Your task to perform on an android device: turn on sleep mode Image 0: 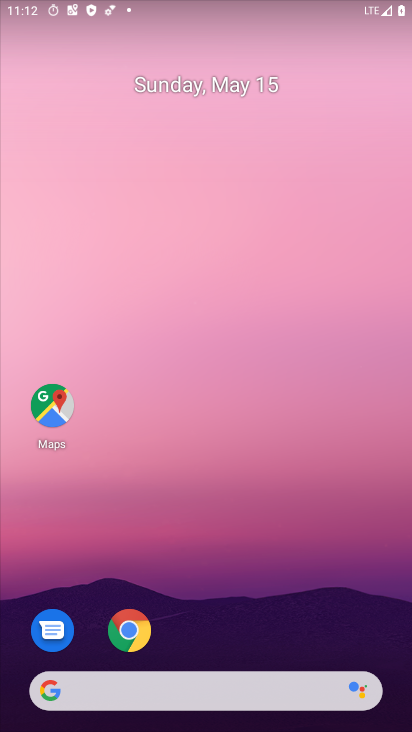
Step 0: drag from (242, 673) to (332, 99)
Your task to perform on an android device: turn on sleep mode Image 1: 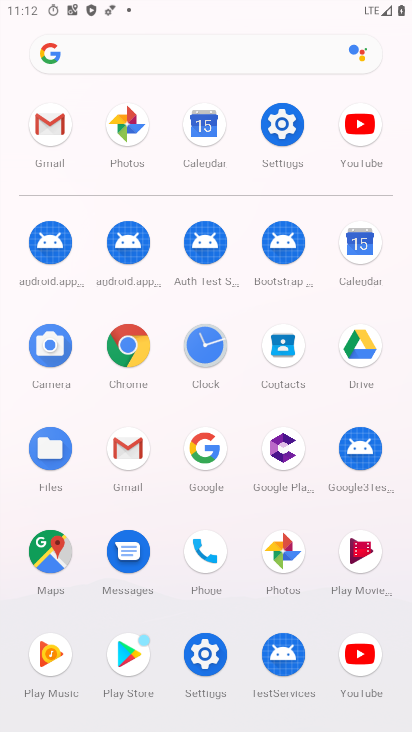
Step 1: click (282, 123)
Your task to perform on an android device: turn on sleep mode Image 2: 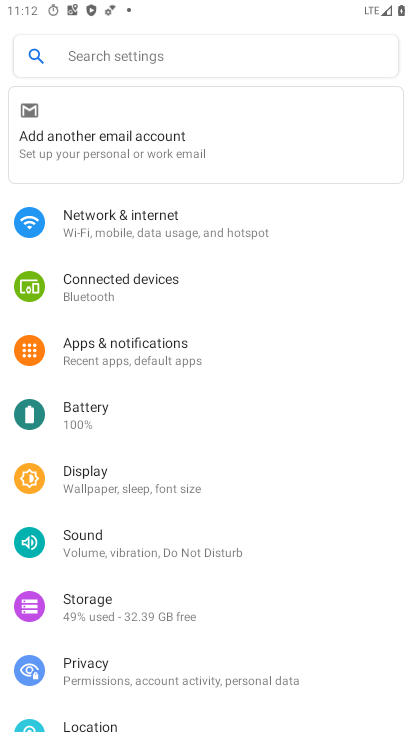
Step 2: click (112, 65)
Your task to perform on an android device: turn on sleep mode Image 3: 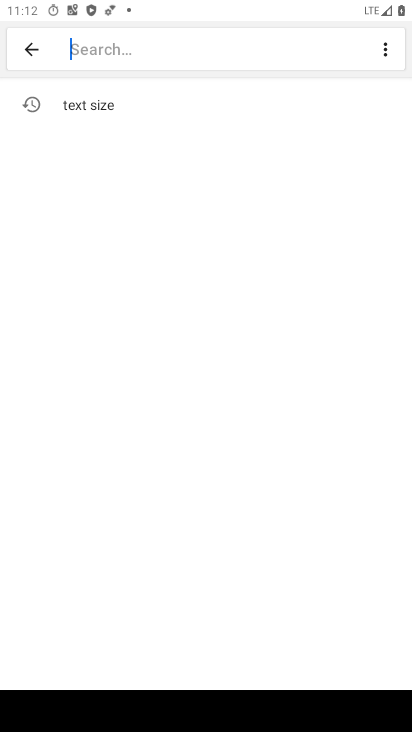
Step 3: type "sleep mode"
Your task to perform on an android device: turn on sleep mode Image 4: 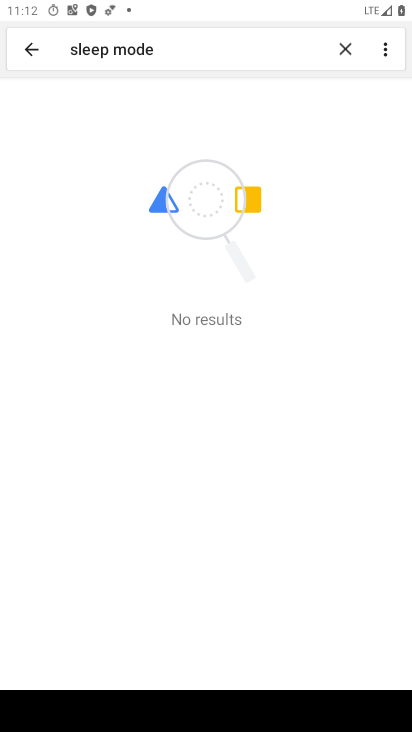
Step 4: task complete